Your task to perform on an android device: Add logitech g502 to the cart on target.com Image 0: 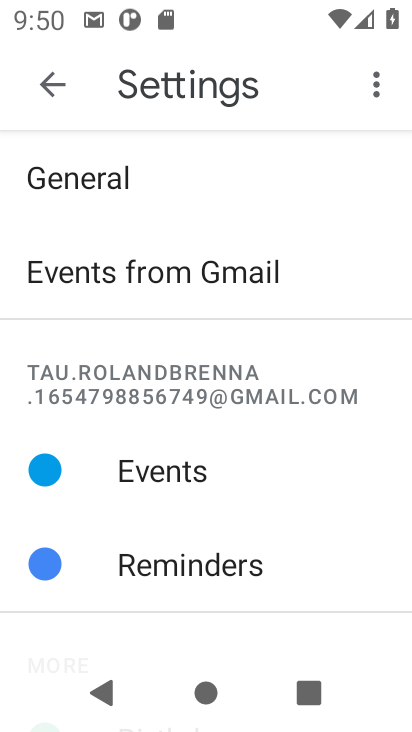
Step 0: press home button
Your task to perform on an android device: Add logitech g502 to the cart on target.com Image 1: 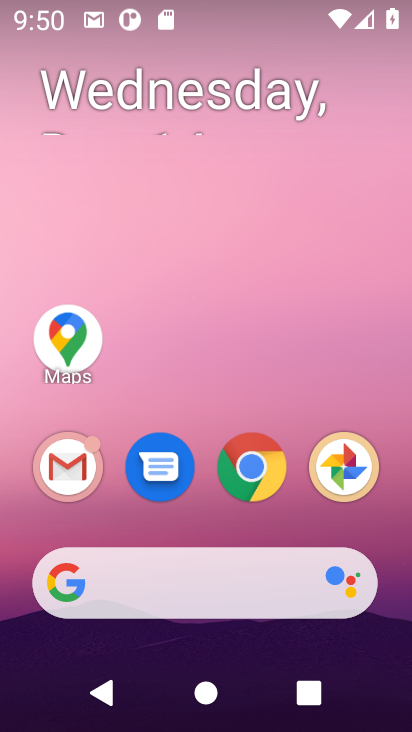
Step 1: click (270, 478)
Your task to perform on an android device: Add logitech g502 to the cart on target.com Image 2: 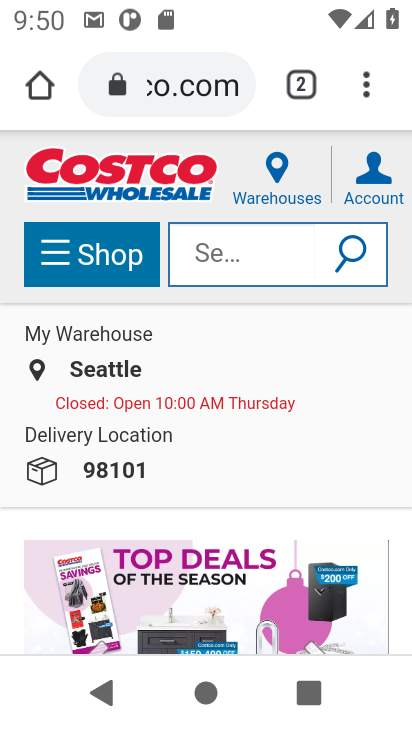
Step 2: task complete